Your task to perform on an android device: What is the news today? Image 0: 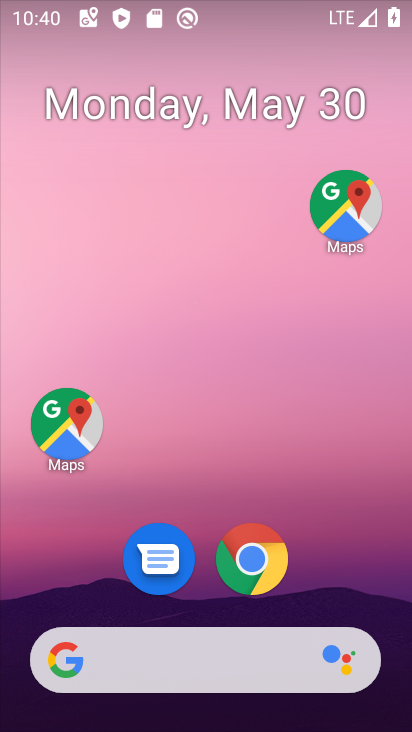
Step 0: drag from (320, 541) to (303, 233)
Your task to perform on an android device: What is the news today? Image 1: 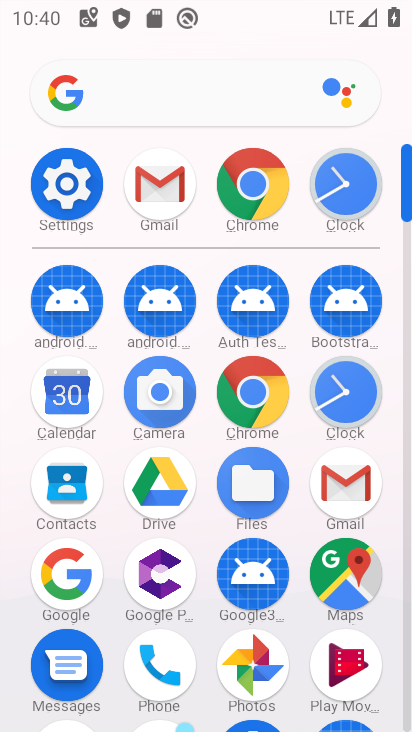
Step 1: click (257, 395)
Your task to perform on an android device: What is the news today? Image 2: 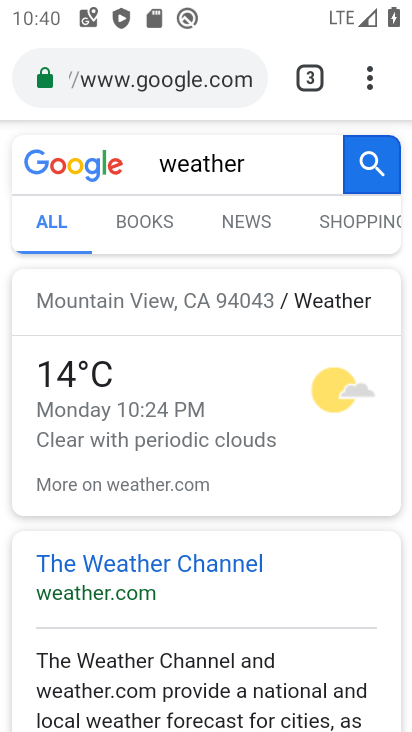
Step 2: click (165, 83)
Your task to perform on an android device: What is the news today? Image 3: 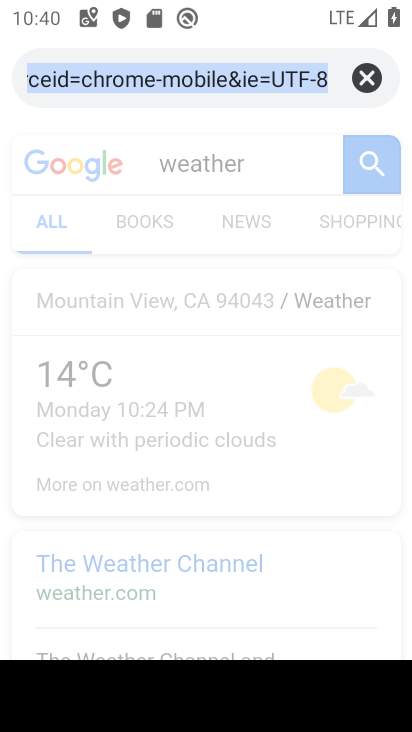
Step 3: type "news"
Your task to perform on an android device: What is the news today? Image 4: 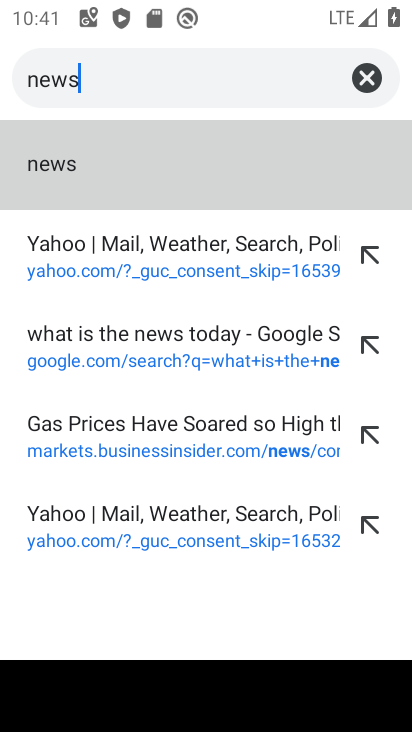
Step 4: click (44, 168)
Your task to perform on an android device: What is the news today? Image 5: 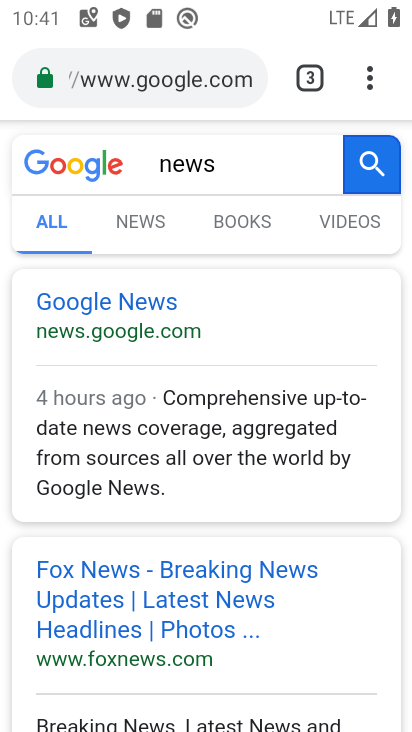
Step 5: click (141, 212)
Your task to perform on an android device: What is the news today? Image 6: 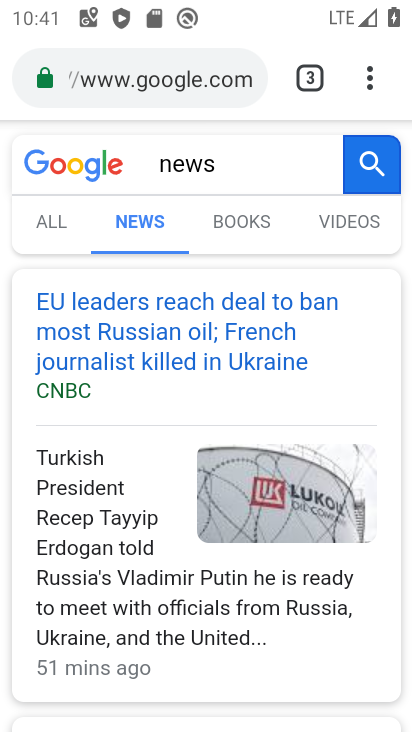
Step 6: task complete